Your task to perform on an android device: change notifications settings Image 0: 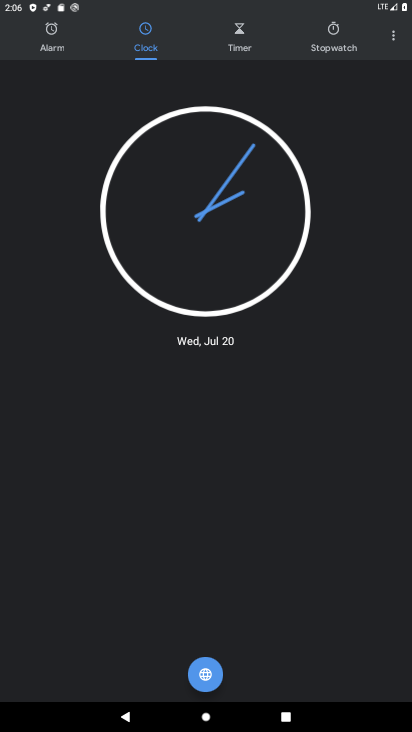
Step 0: press home button
Your task to perform on an android device: change notifications settings Image 1: 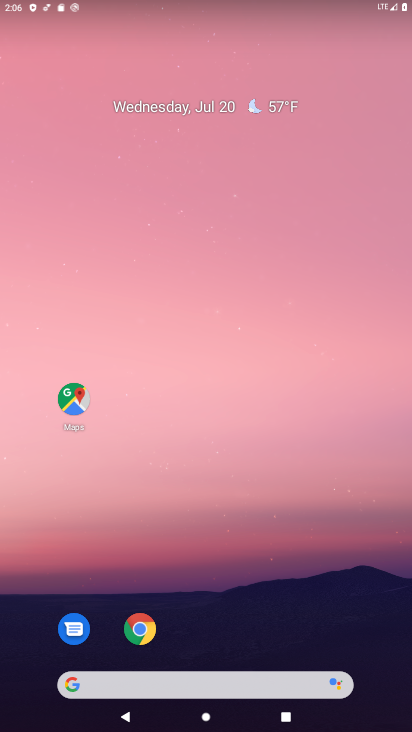
Step 1: drag from (391, 644) to (327, 65)
Your task to perform on an android device: change notifications settings Image 2: 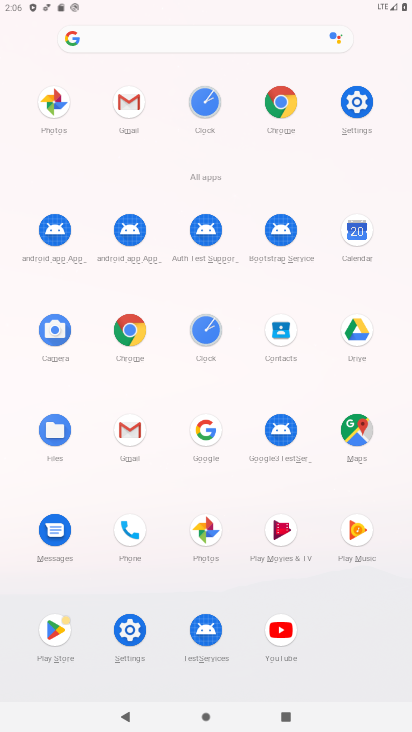
Step 2: click (131, 631)
Your task to perform on an android device: change notifications settings Image 3: 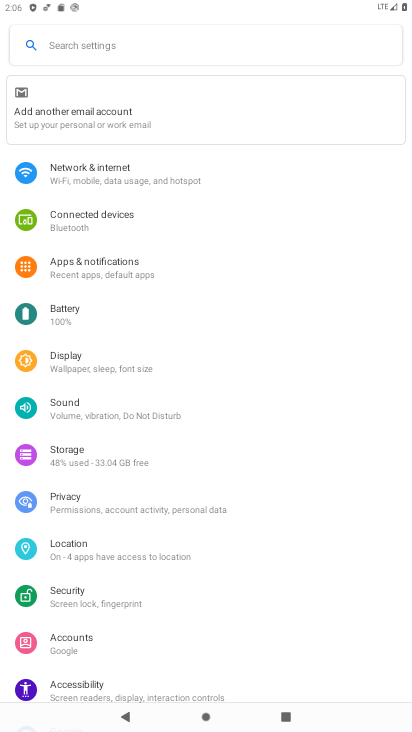
Step 3: click (85, 266)
Your task to perform on an android device: change notifications settings Image 4: 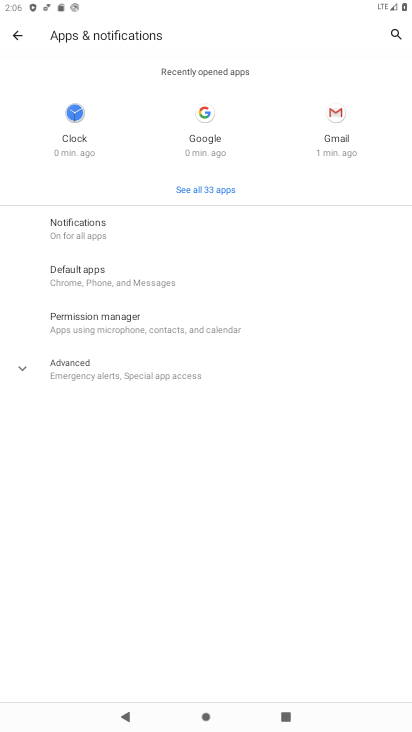
Step 4: click (89, 231)
Your task to perform on an android device: change notifications settings Image 5: 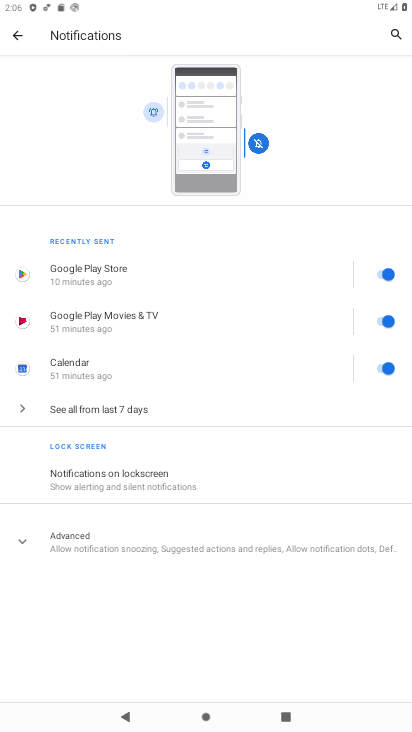
Step 5: click (20, 538)
Your task to perform on an android device: change notifications settings Image 6: 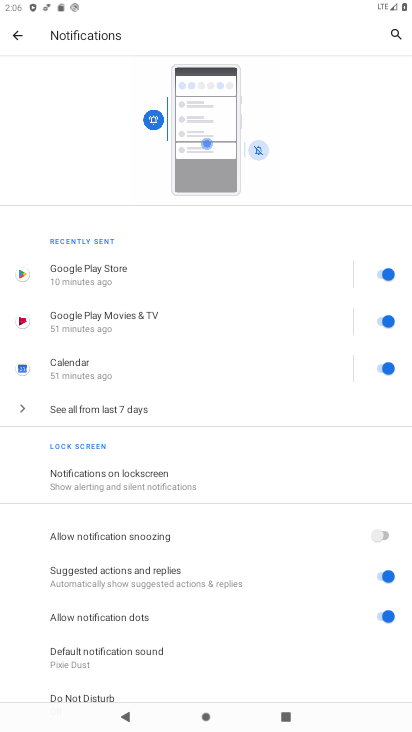
Step 6: click (379, 614)
Your task to perform on an android device: change notifications settings Image 7: 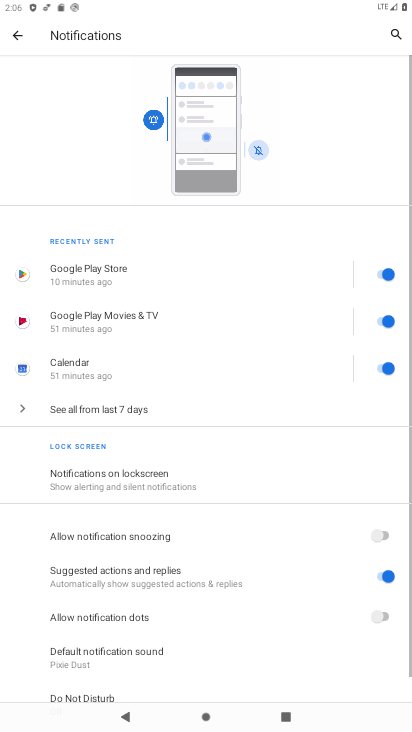
Step 7: click (385, 533)
Your task to perform on an android device: change notifications settings Image 8: 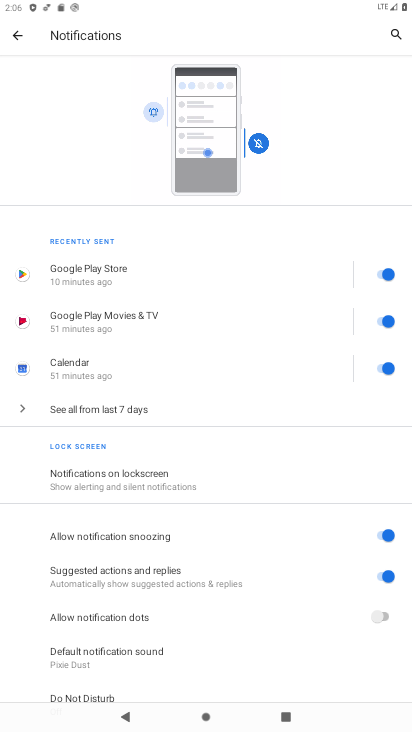
Step 8: task complete